Your task to perform on an android device: Go to battery settings Image 0: 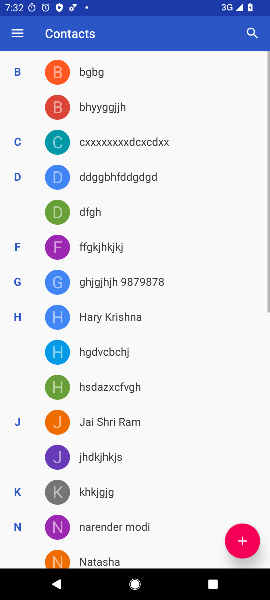
Step 0: press home button
Your task to perform on an android device: Go to battery settings Image 1: 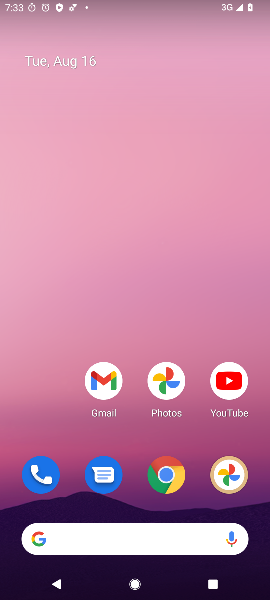
Step 1: drag from (200, 498) to (104, 16)
Your task to perform on an android device: Go to battery settings Image 2: 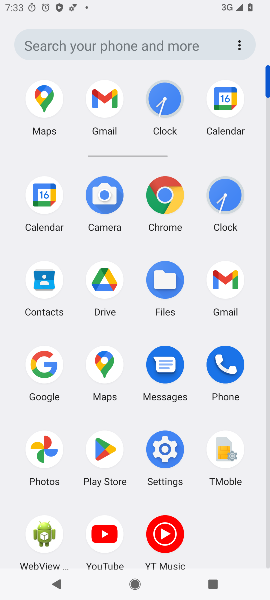
Step 2: click (175, 459)
Your task to perform on an android device: Go to battery settings Image 3: 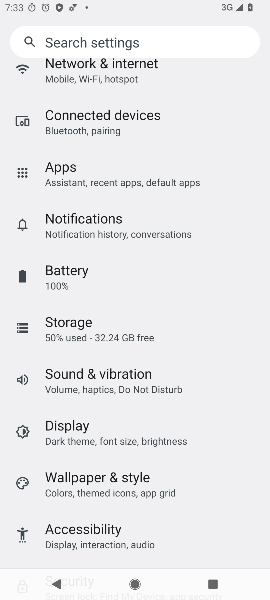
Step 3: click (77, 290)
Your task to perform on an android device: Go to battery settings Image 4: 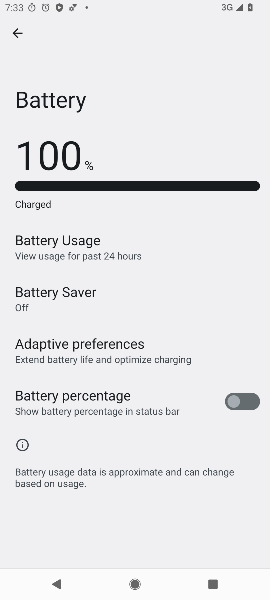
Step 4: task complete